Your task to perform on an android device: Open network settings Image 0: 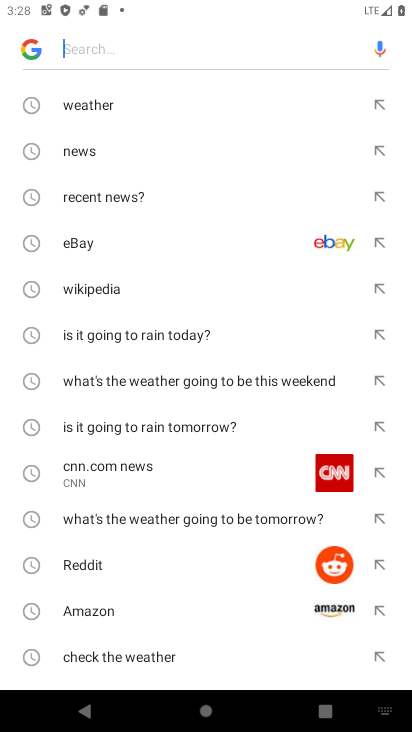
Step 0: press home button
Your task to perform on an android device: Open network settings Image 1: 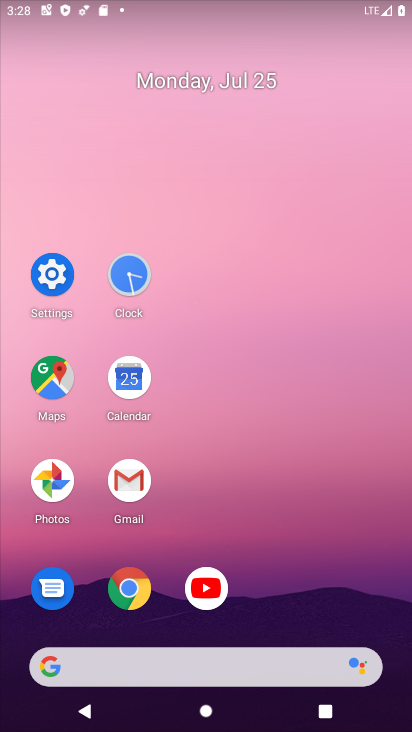
Step 1: click (49, 275)
Your task to perform on an android device: Open network settings Image 2: 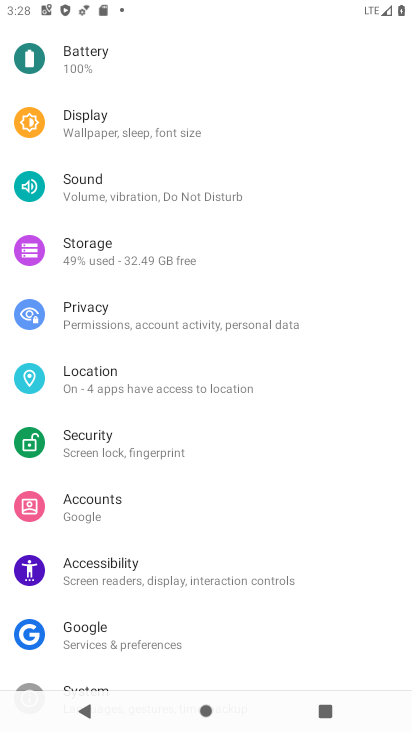
Step 2: drag from (318, 124) to (375, 540)
Your task to perform on an android device: Open network settings Image 3: 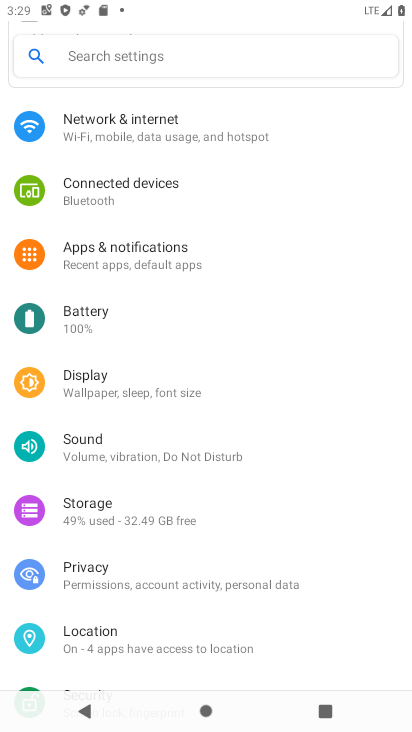
Step 3: click (106, 114)
Your task to perform on an android device: Open network settings Image 4: 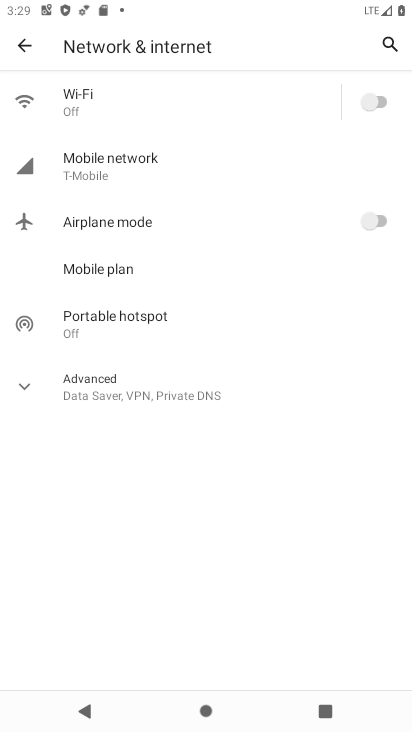
Step 4: click (110, 157)
Your task to perform on an android device: Open network settings Image 5: 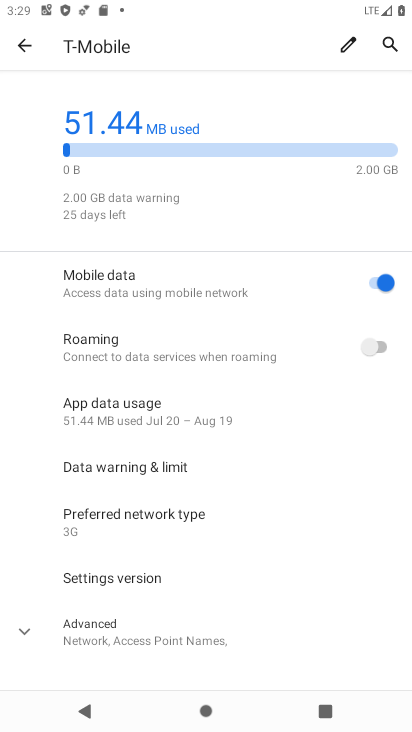
Step 5: task complete